Your task to perform on an android device: Go to wifi settings Image 0: 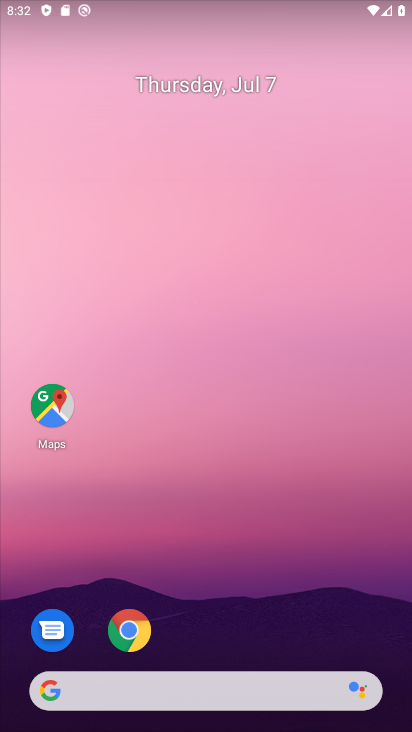
Step 0: drag from (195, 579) to (195, 331)
Your task to perform on an android device: Go to wifi settings Image 1: 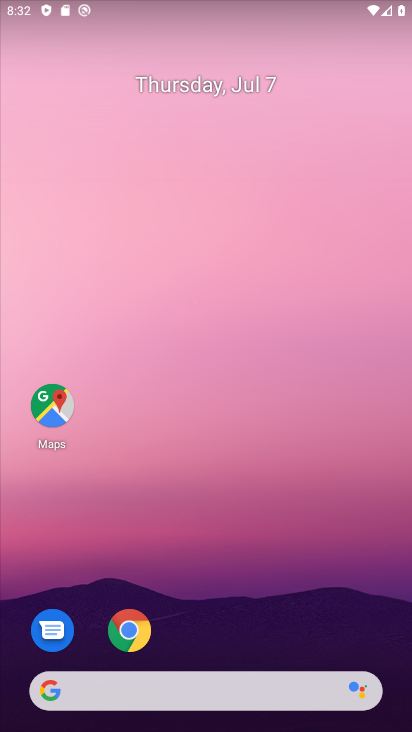
Step 1: drag from (203, 616) to (129, 73)
Your task to perform on an android device: Go to wifi settings Image 2: 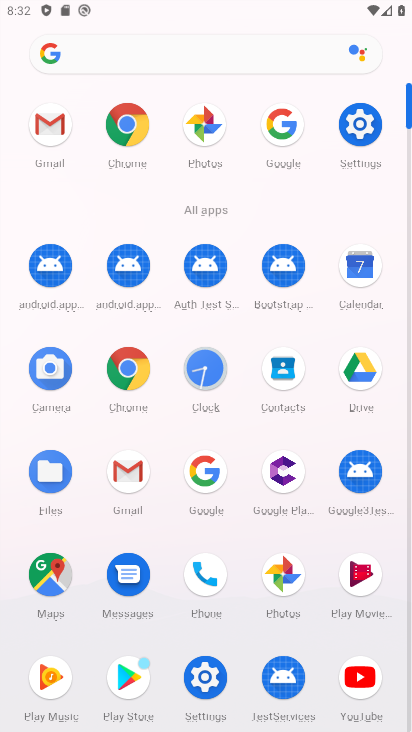
Step 2: click (344, 131)
Your task to perform on an android device: Go to wifi settings Image 3: 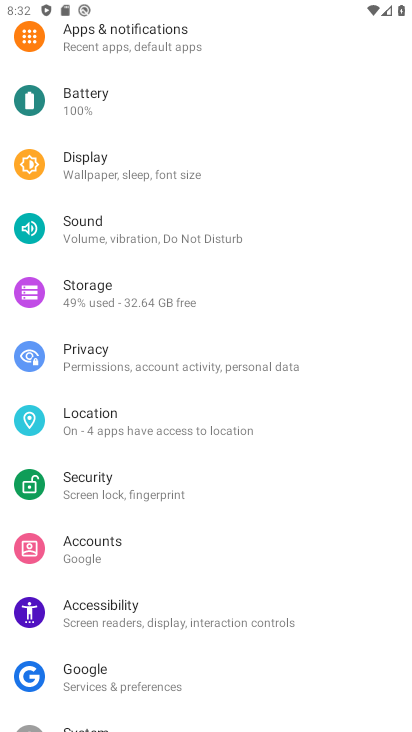
Step 3: drag from (138, 241) to (169, 562)
Your task to perform on an android device: Go to wifi settings Image 4: 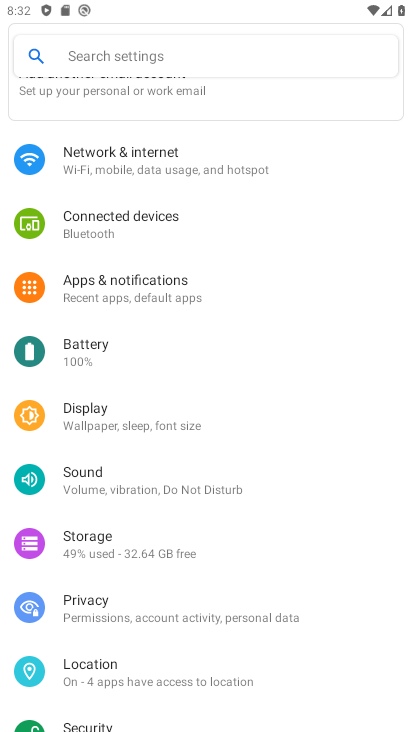
Step 4: click (133, 175)
Your task to perform on an android device: Go to wifi settings Image 5: 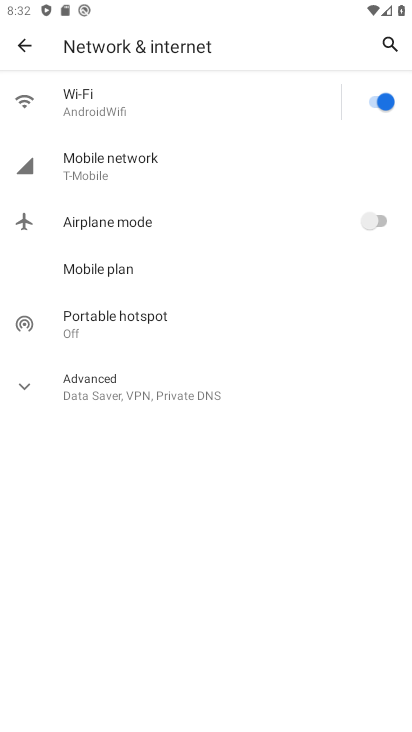
Step 5: click (111, 105)
Your task to perform on an android device: Go to wifi settings Image 6: 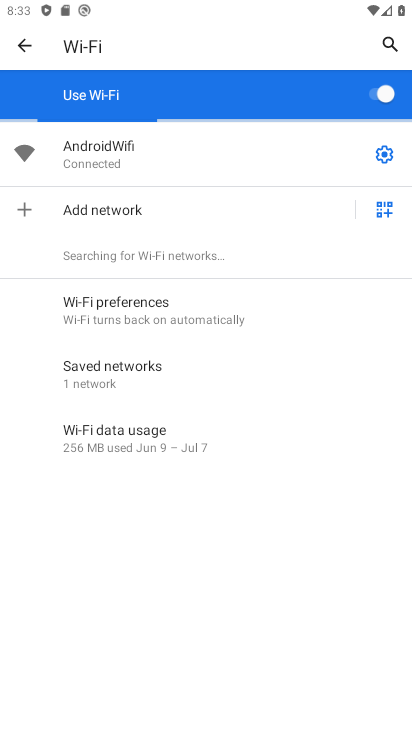
Step 6: task complete